Your task to perform on an android device: toggle airplane mode Image 0: 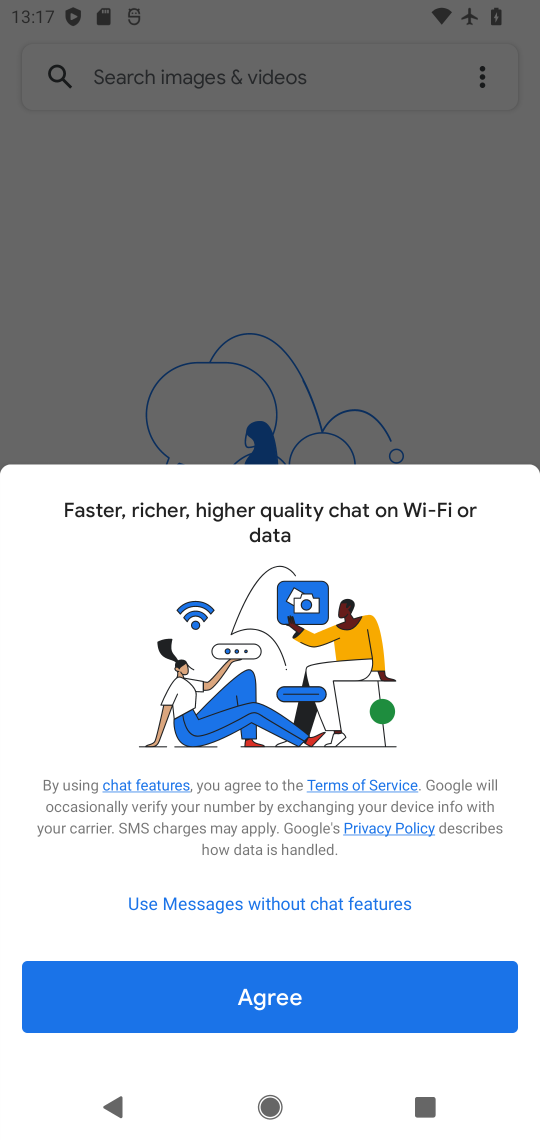
Step 0: press home button
Your task to perform on an android device: toggle airplane mode Image 1: 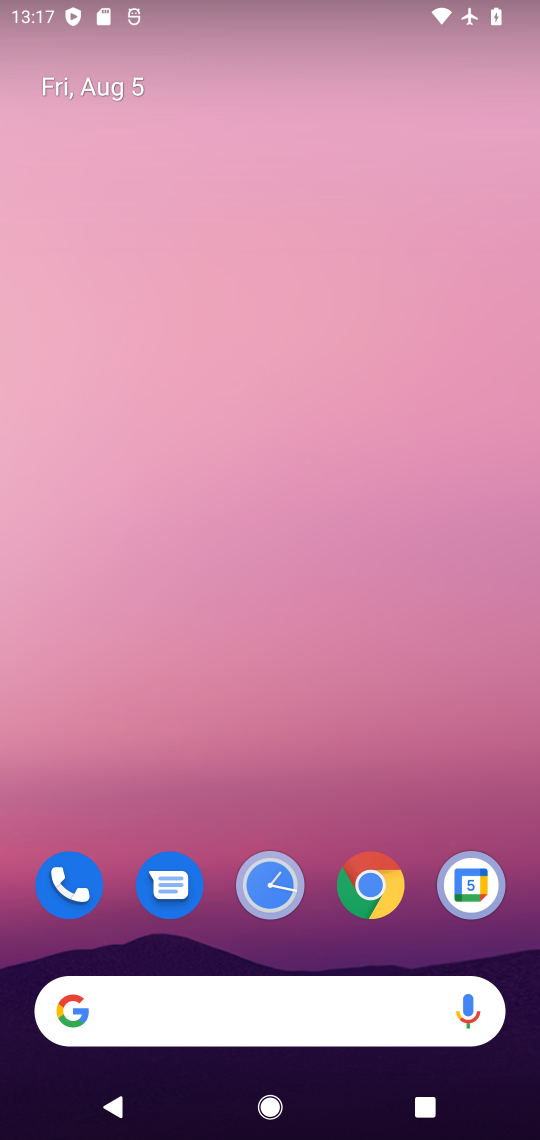
Step 1: click (297, 949)
Your task to perform on an android device: toggle airplane mode Image 2: 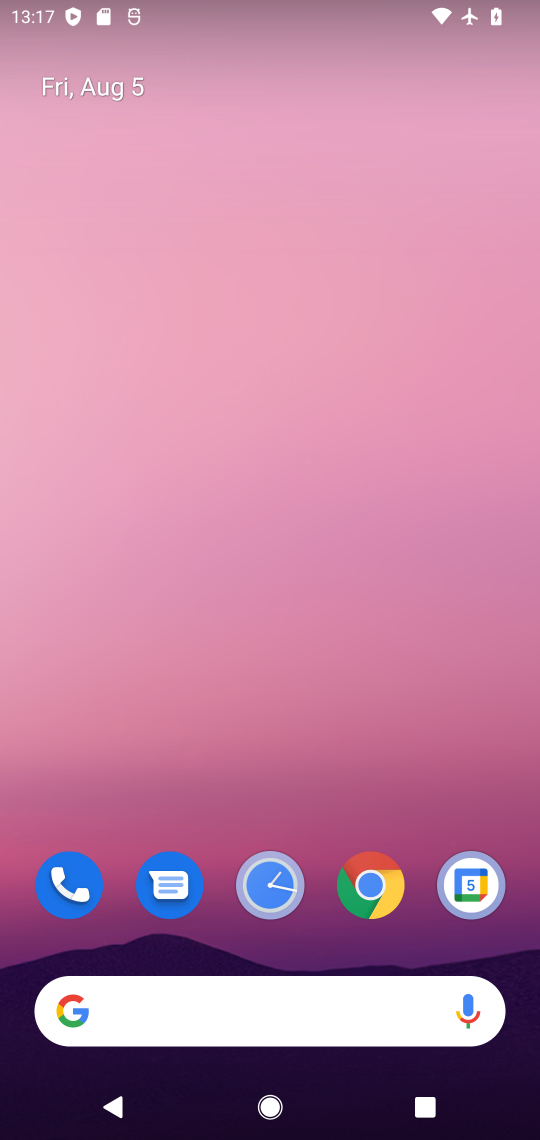
Step 2: drag from (207, 823) to (232, 201)
Your task to perform on an android device: toggle airplane mode Image 3: 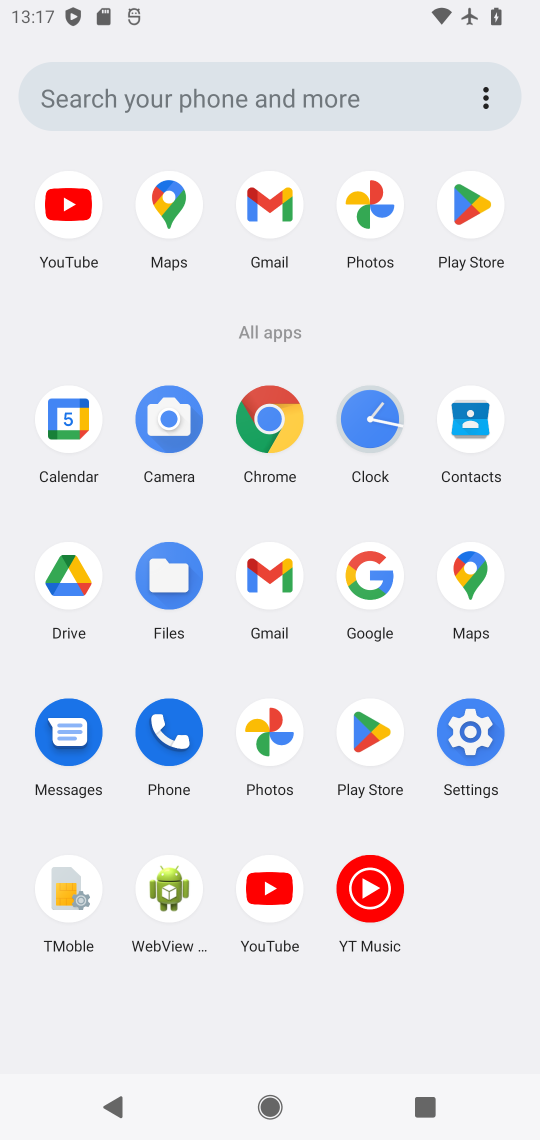
Step 3: click (469, 742)
Your task to perform on an android device: toggle airplane mode Image 4: 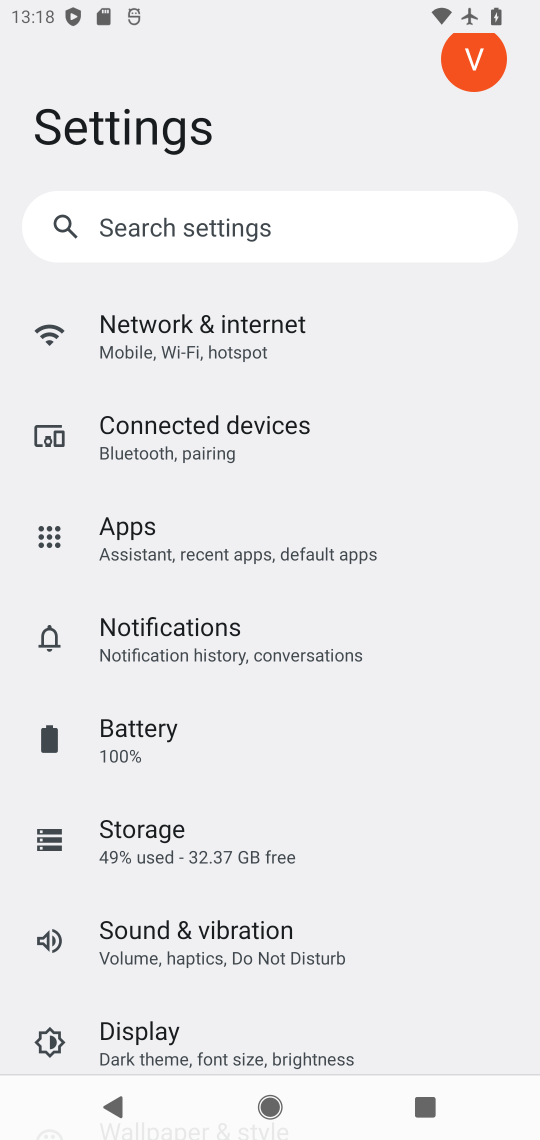
Step 4: click (258, 354)
Your task to perform on an android device: toggle airplane mode Image 5: 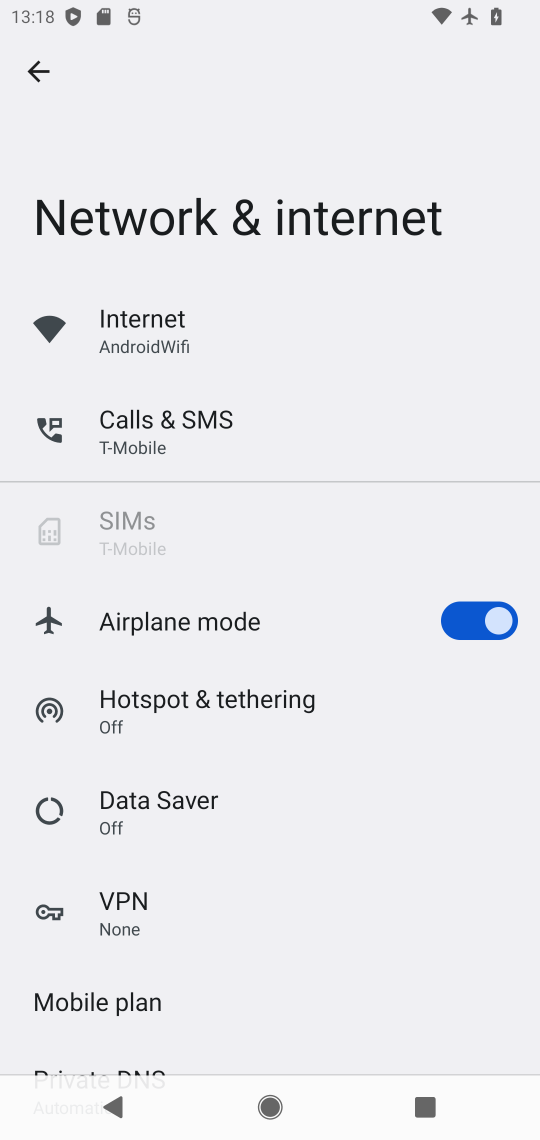
Step 5: click (457, 622)
Your task to perform on an android device: toggle airplane mode Image 6: 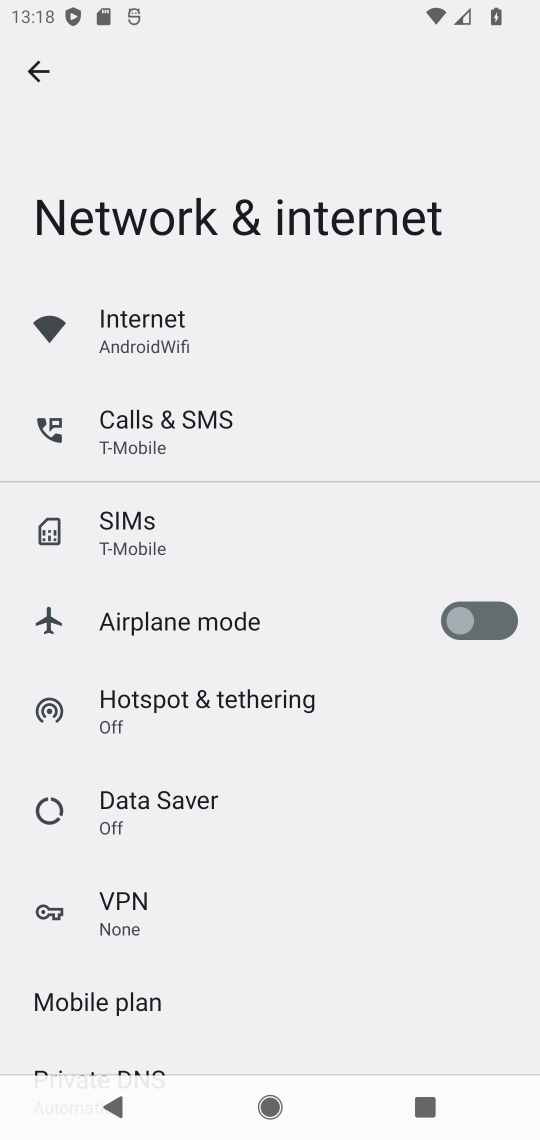
Step 6: task complete